Your task to perform on an android device: Show the shopping cart on newegg.com. Search for "dell alienware" on newegg.com, select the first entry, and add it to the cart. Image 0: 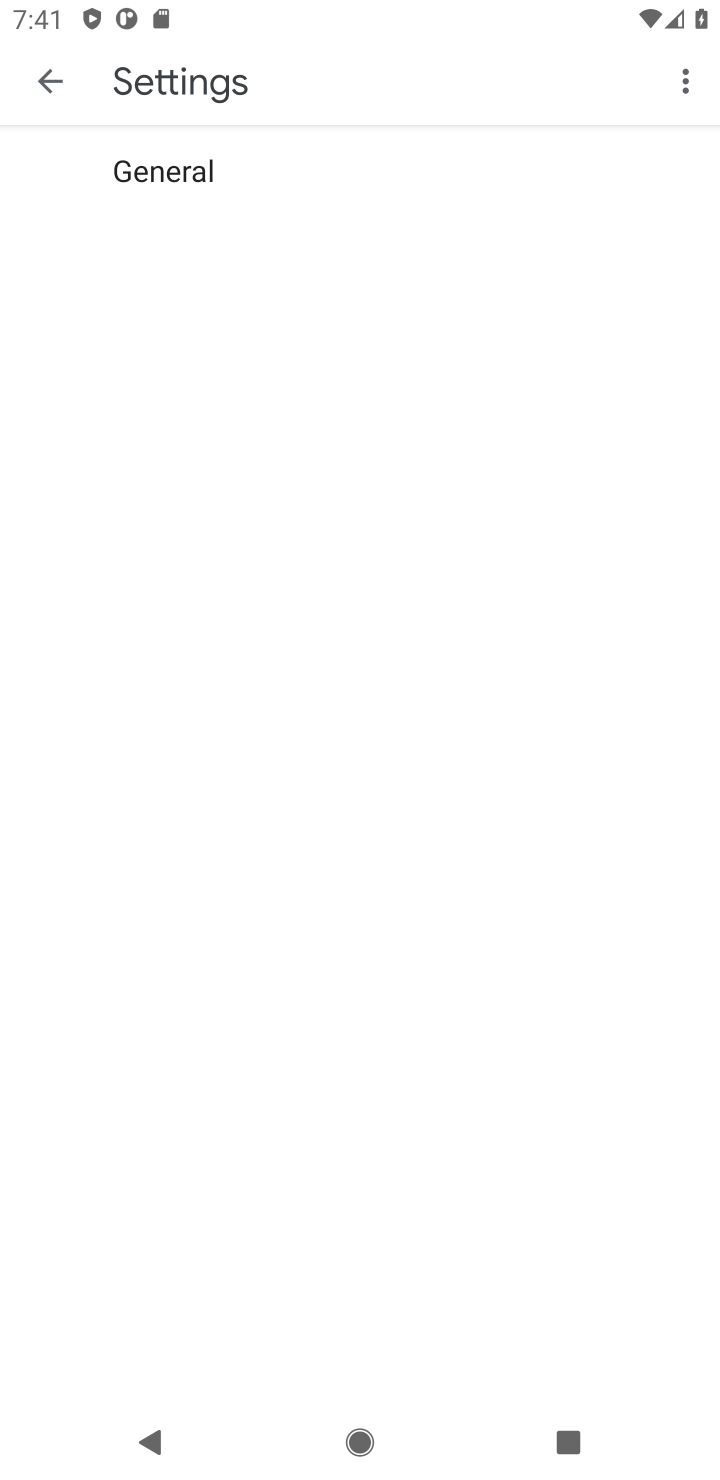
Step 0: task complete